Your task to perform on an android device: Open maps Image 0: 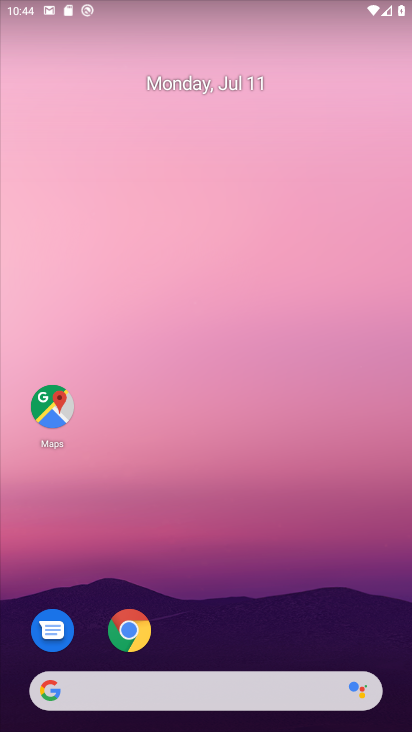
Step 0: drag from (222, 648) to (230, 83)
Your task to perform on an android device: Open maps Image 1: 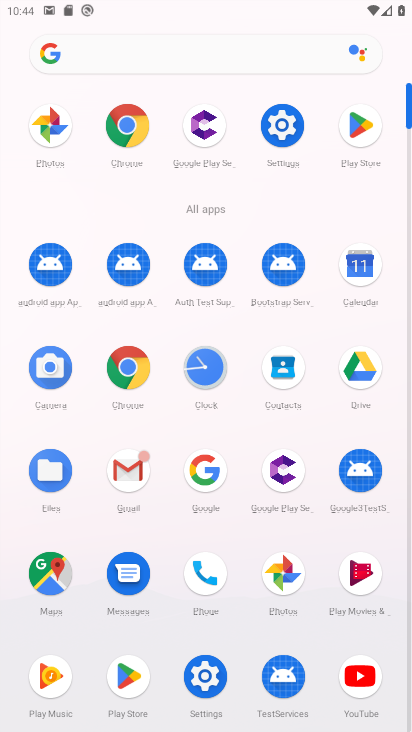
Step 1: click (70, 580)
Your task to perform on an android device: Open maps Image 2: 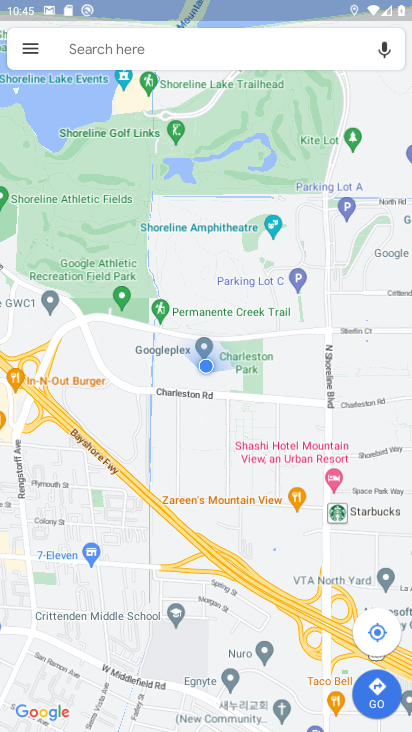
Step 2: task complete